Your task to perform on an android device: Open Google Maps and go to "Timeline" Image 0: 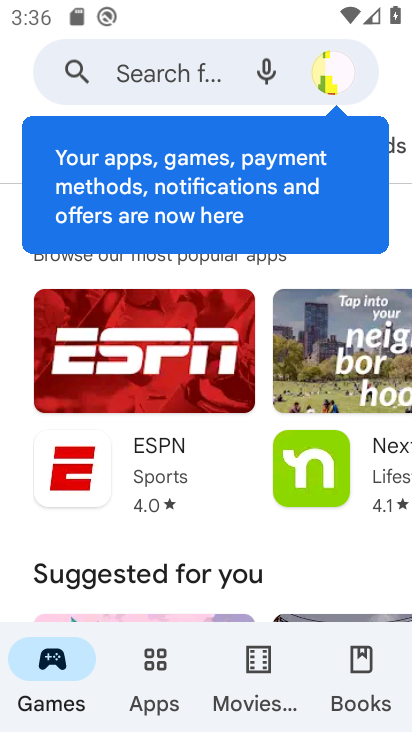
Step 0: press home button
Your task to perform on an android device: Open Google Maps and go to "Timeline" Image 1: 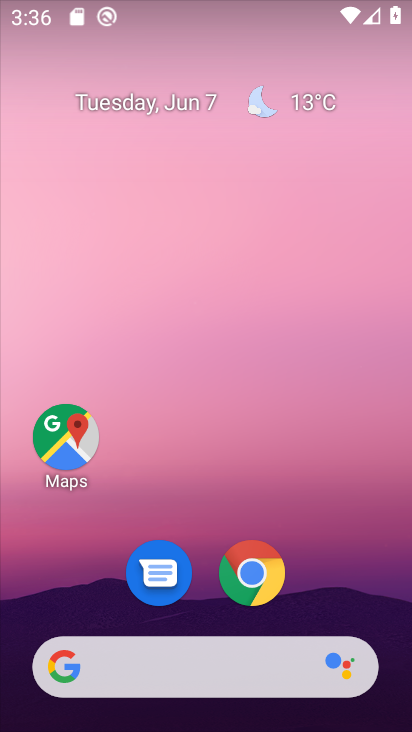
Step 1: click (69, 450)
Your task to perform on an android device: Open Google Maps and go to "Timeline" Image 2: 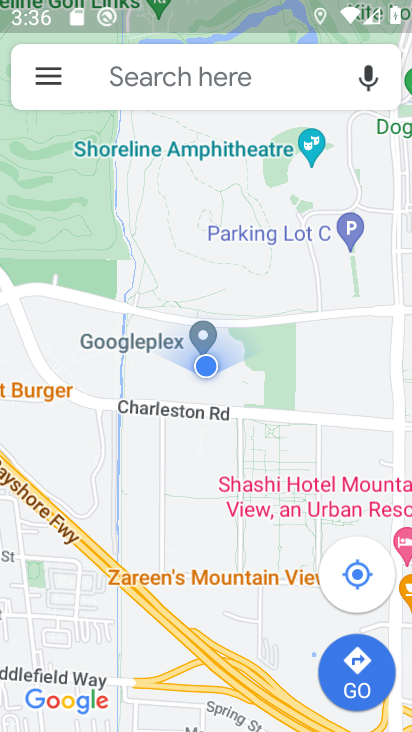
Step 2: click (53, 69)
Your task to perform on an android device: Open Google Maps and go to "Timeline" Image 3: 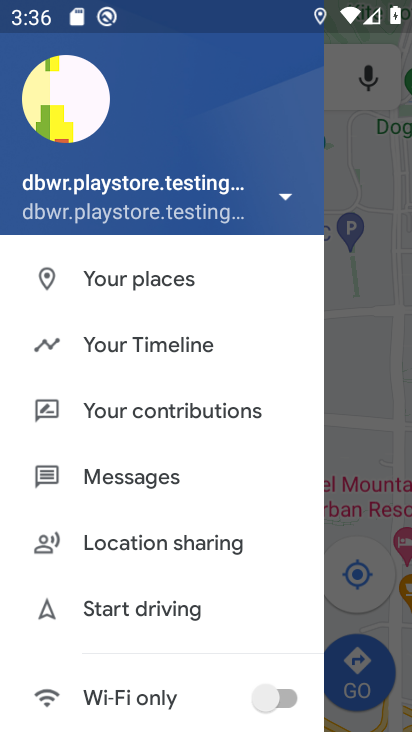
Step 3: click (133, 348)
Your task to perform on an android device: Open Google Maps and go to "Timeline" Image 4: 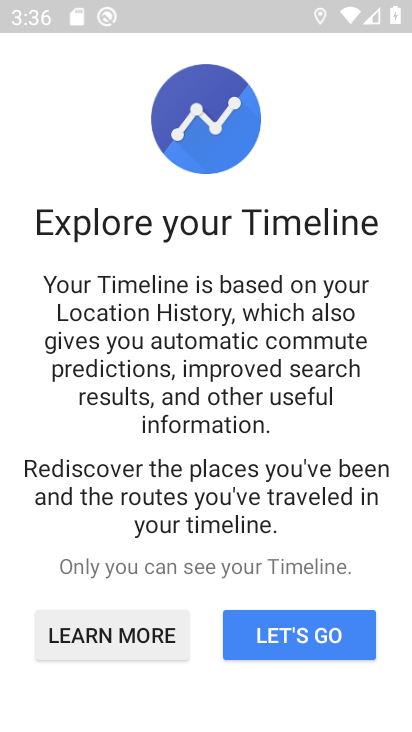
Step 4: click (333, 623)
Your task to perform on an android device: Open Google Maps and go to "Timeline" Image 5: 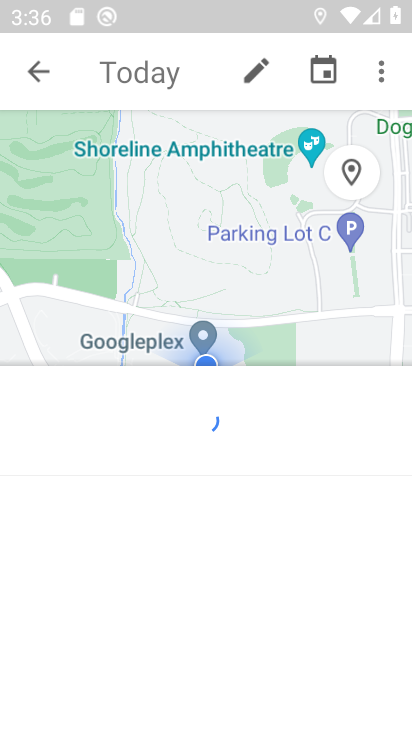
Step 5: task complete